Your task to perform on an android device: open a bookmark in the chrome app Image 0: 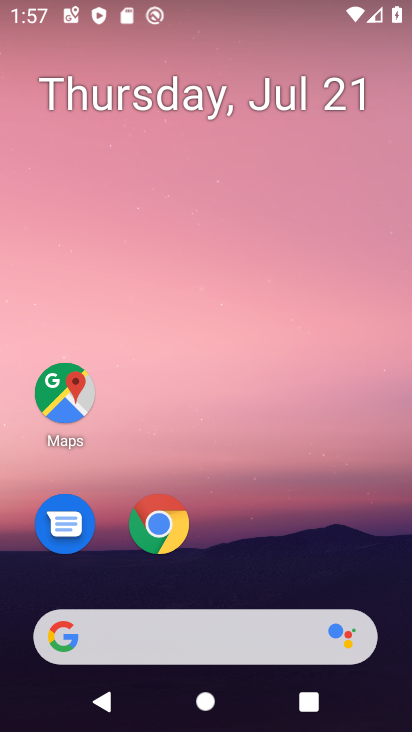
Step 0: drag from (272, 553) to (261, 42)
Your task to perform on an android device: open a bookmark in the chrome app Image 1: 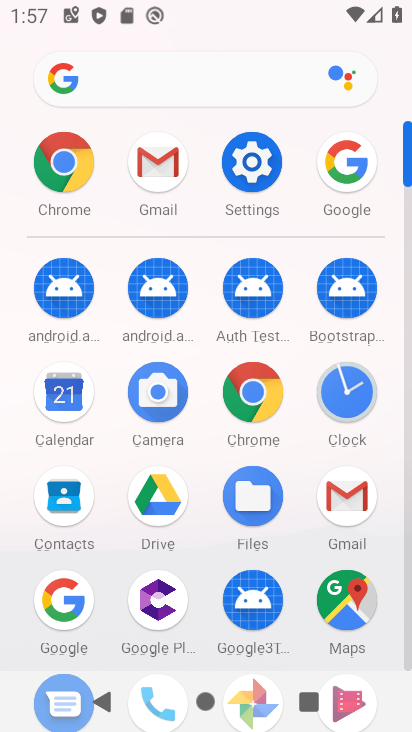
Step 1: click (66, 168)
Your task to perform on an android device: open a bookmark in the chrome app Image 2: 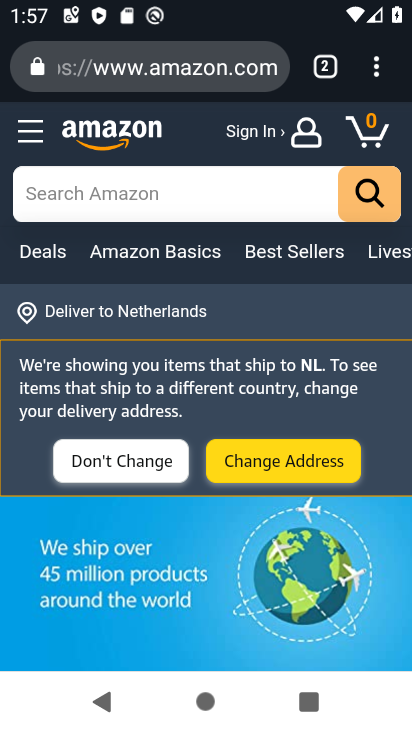
Step 2: click (379, 77)
Your task to perform on an android device: open a bookmark in the chrome app Image 3: 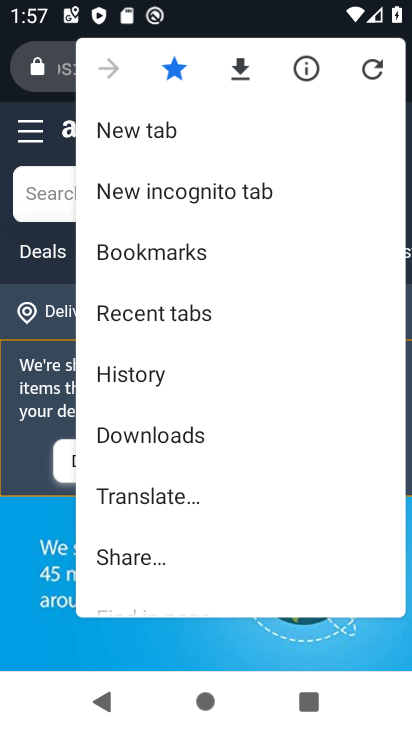
Step 3: click (199, 241)
Your task to perform on an android device: open a bookmark in the chrome app Image 4: 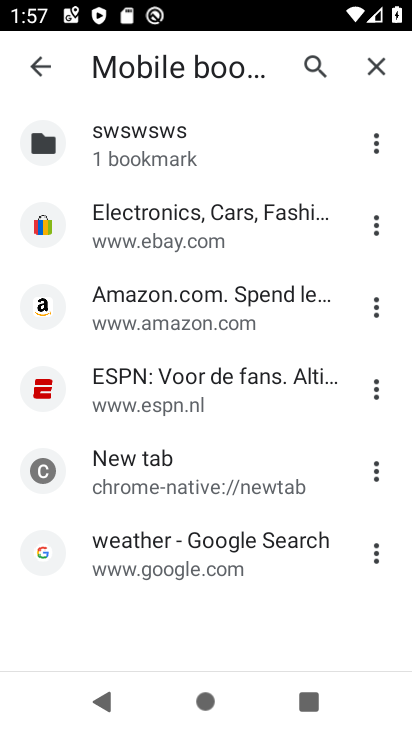
Step 4: click (175, 388)
Your task to perform on an android device: open a bookmark in the chrome app Image 5: 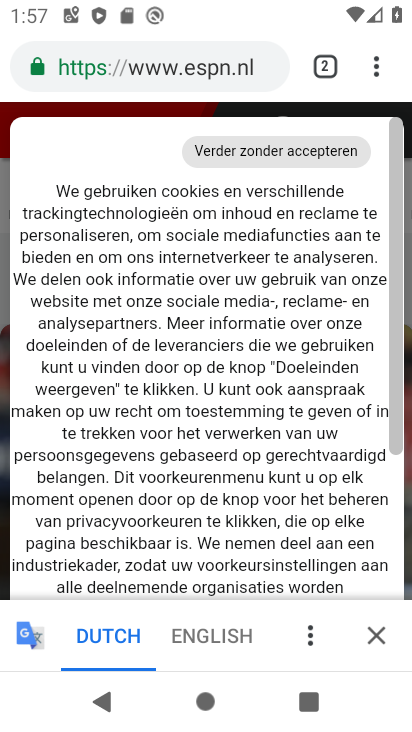
Step 5: click (233, 642)
Your task to perform on an android device: open a bookmark in the chrome app Image 6: 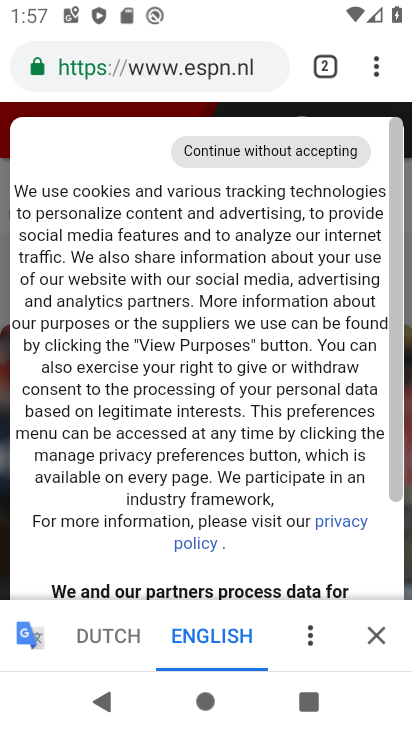
Step 6: click (328, 150)
Your task to perform on an android device: open a bookmark in the chrome app Image 7: 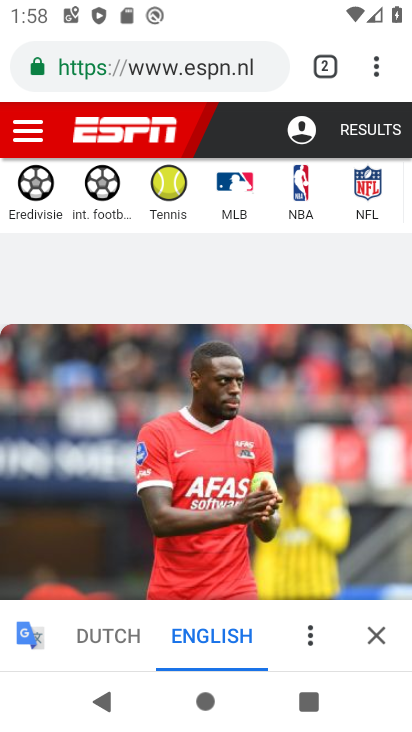
Step 7: task complete